Your task to perform on an android device: toggle data saver in the chrome app Image 0: 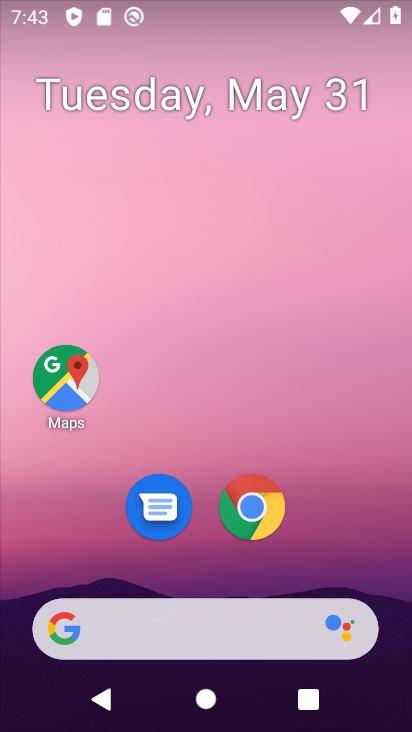
Step 0: drag from (250, 14) to (375, 63)
Your task to perform on an android device: toggle data saver in the chrome app Image 1: 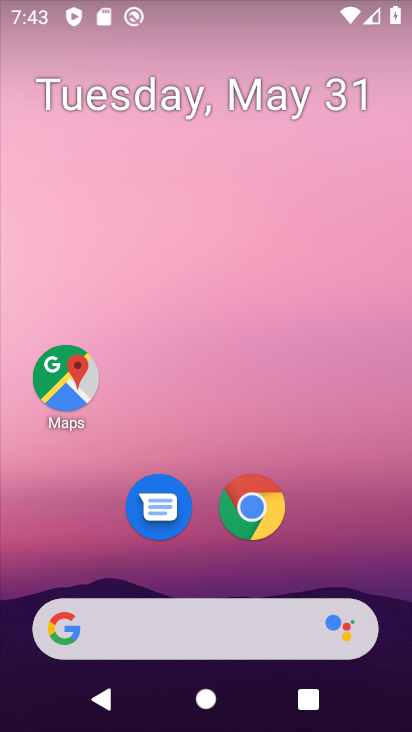
Step 1: click (262, 508)
Your task to perform on an android device: toggle data saver in the chrome app Image 2: 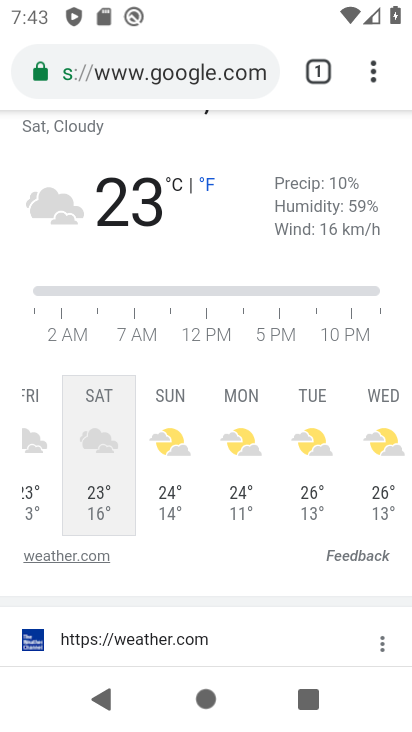
Step 2: drag from (371, 74) to (157, 504)
Your task to perform on an android device: toggle data saver in the chrome app Image 3: 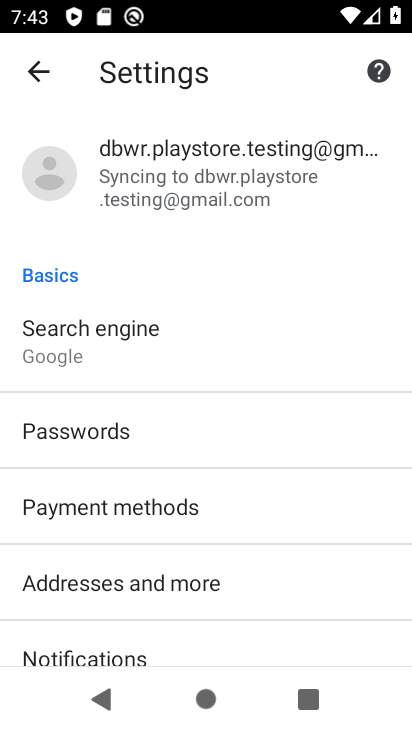
Step 3: drag from (172, 630) to (253, 287)
Your task to perform on an android device: toggle data saver in the chrome app Image 4: 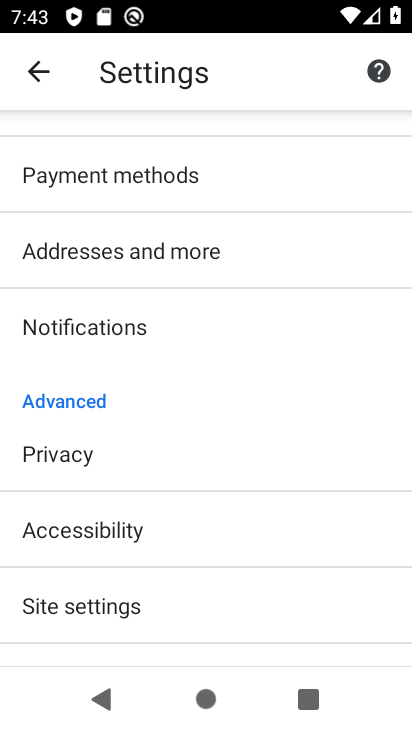
Step 4: drag from (272, 520) to (304, 359)
Your task to perform on an android device: toggle data saver in the chrome app Image 5: 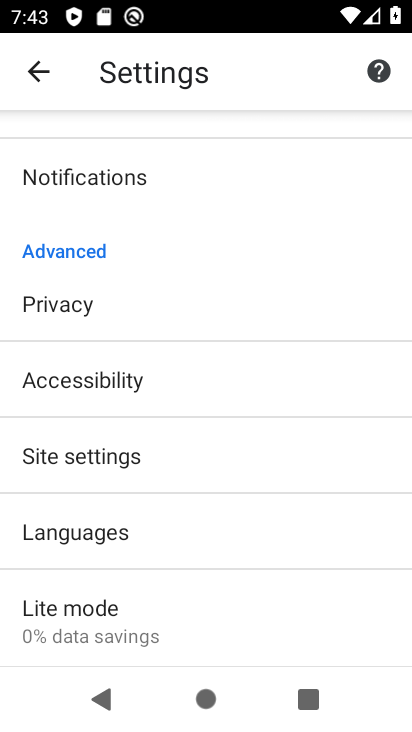
Step 5: click (114, 609)
Your task to perform on an android device: toggle data saver in the chrome app Image 6: 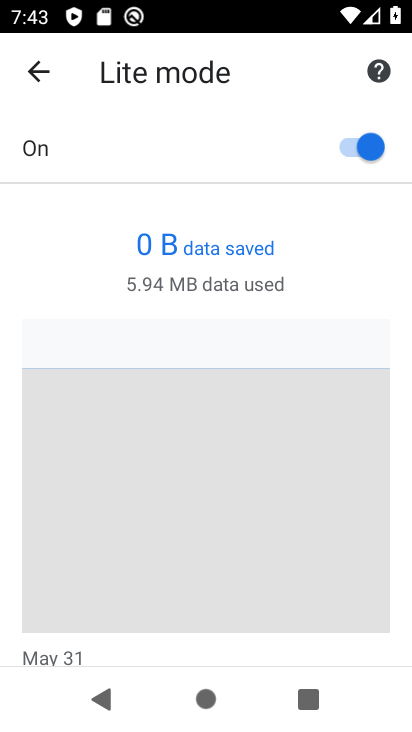
Step 6: click (372, 146)
Your task to perform on an android device: toggle data saver in the chrome app Image 7: 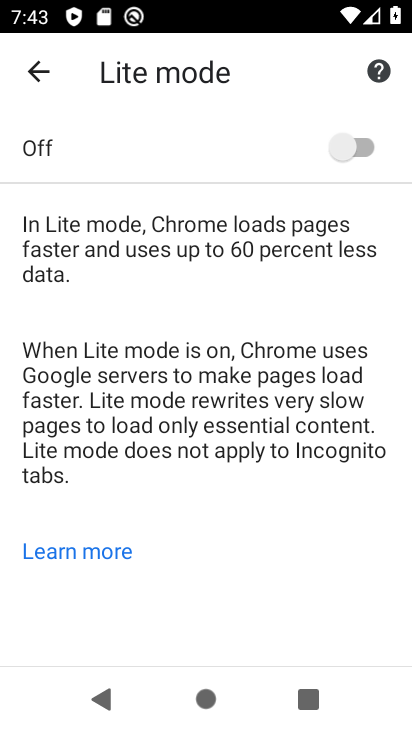
Step 7: task complete